Your task to perform on an android device: Go to calendar. Show me events next week Image 0: 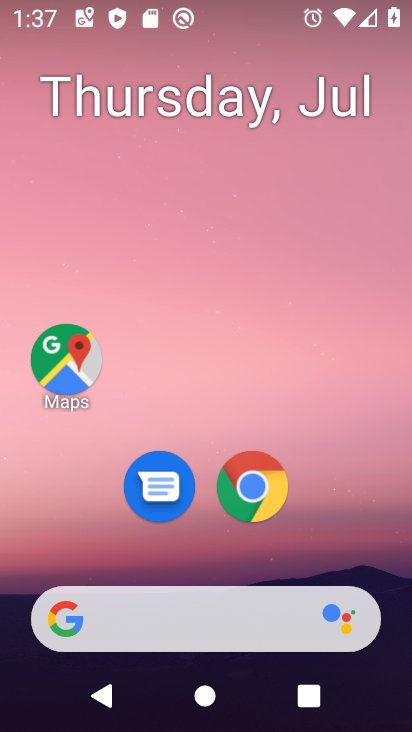
Step 0: drag from (115, 579) to (254, 0)
Your task to perform on an android device: Go to calendar. Show me events next week Image 1: 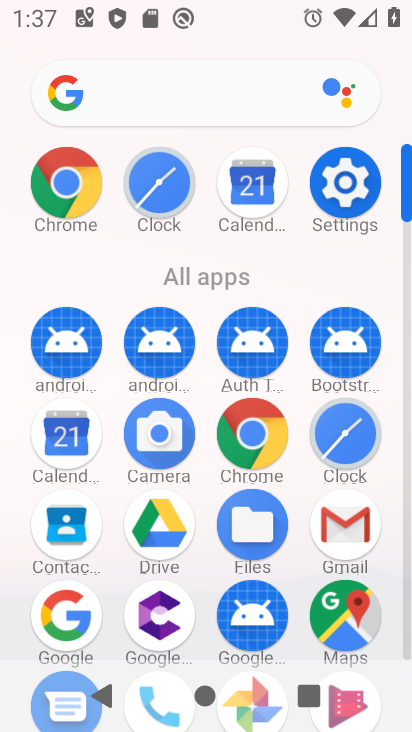
Step 1: click (33, 447)
Your task to perform on an android device: Go to calendar. Show me events next week Image 2: 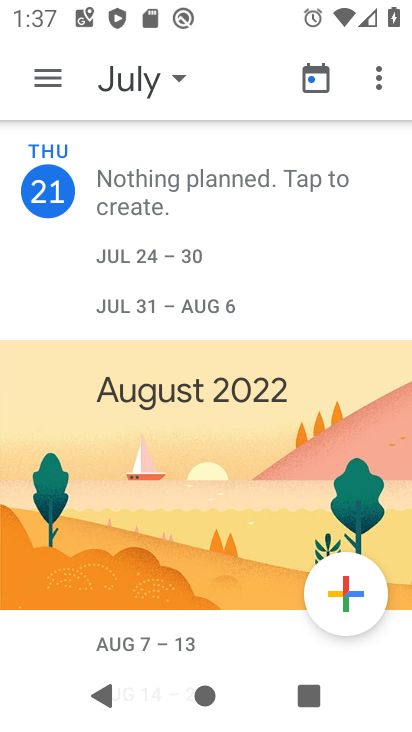
Step 2: task complete